Your task to perform on an android device: Open privacy settings Image 0: 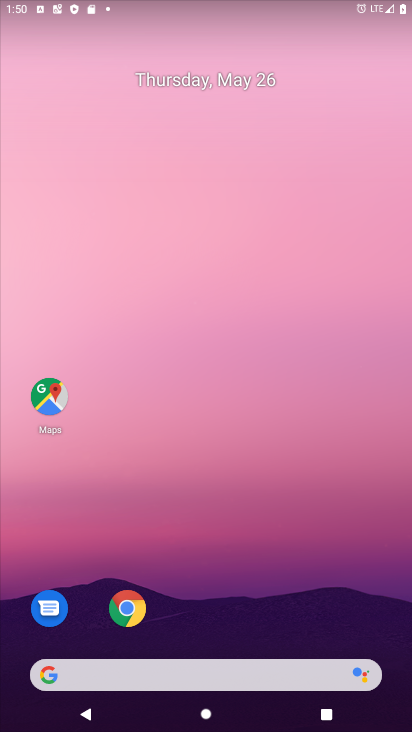
Step 0: drag from (371, 597) to (340, 335)
Your task to perform on an android device: Open privacy settings Image 1: 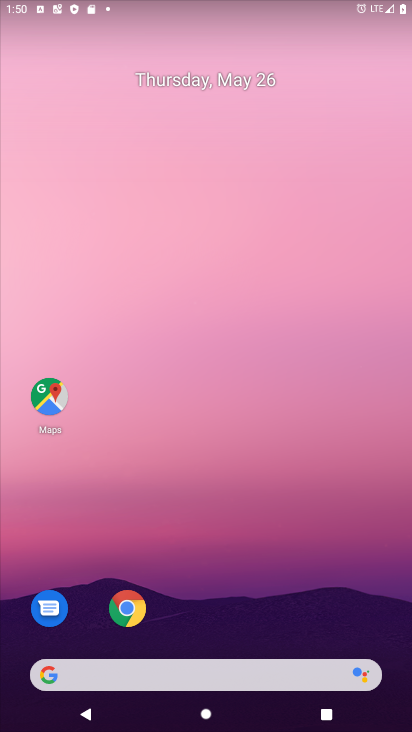
Step 1: drag from (347, 587) to (299, 301)
Your task to perform on an android device: Open privacy settings Image 2: 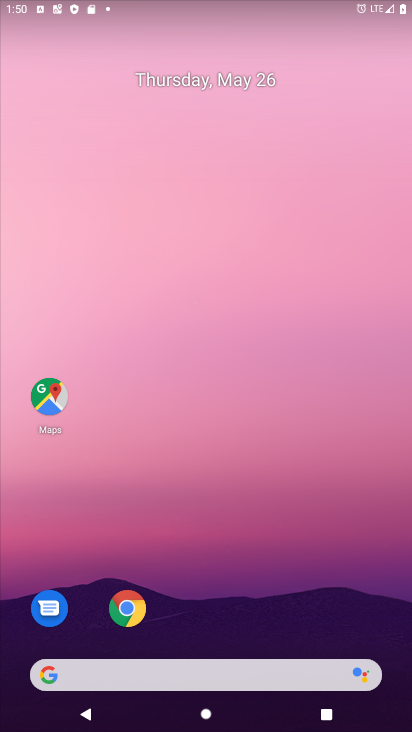
Step 2: drag from (318, 568) to (322, 186)
Your task to perform on an android device: Open privacy settings Image 3: 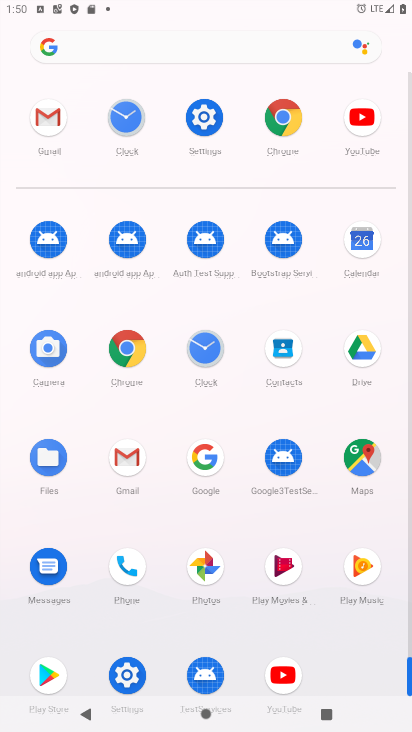
Step 3: click (125, 678)
Your task to perform on an android device: Open privacy settings Image 4: 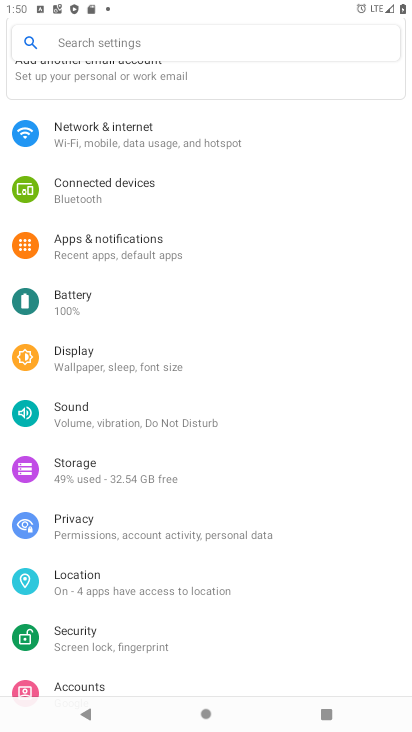
Step 4: click (80, 523)
Your task to perform on an android device: Open privacy settings Image 5: 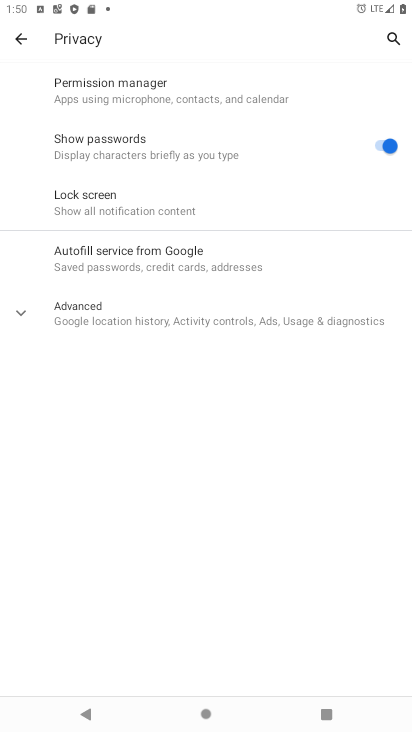
Step 5: task complete